Your task to perform on an android device: turn off improve location accuracy Image 0: 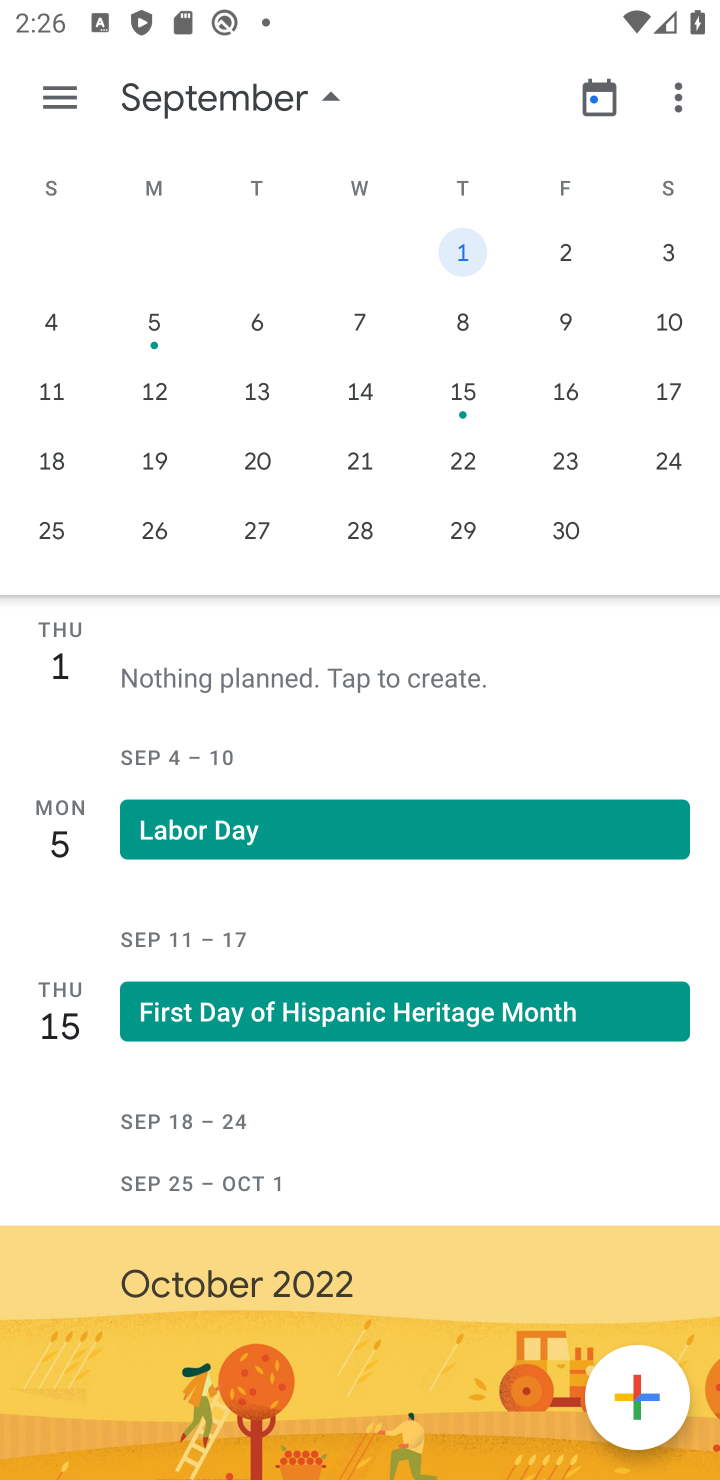
Step 0: press home button
Your task to perform on an android device: turn off improve location accuracy Image 1: 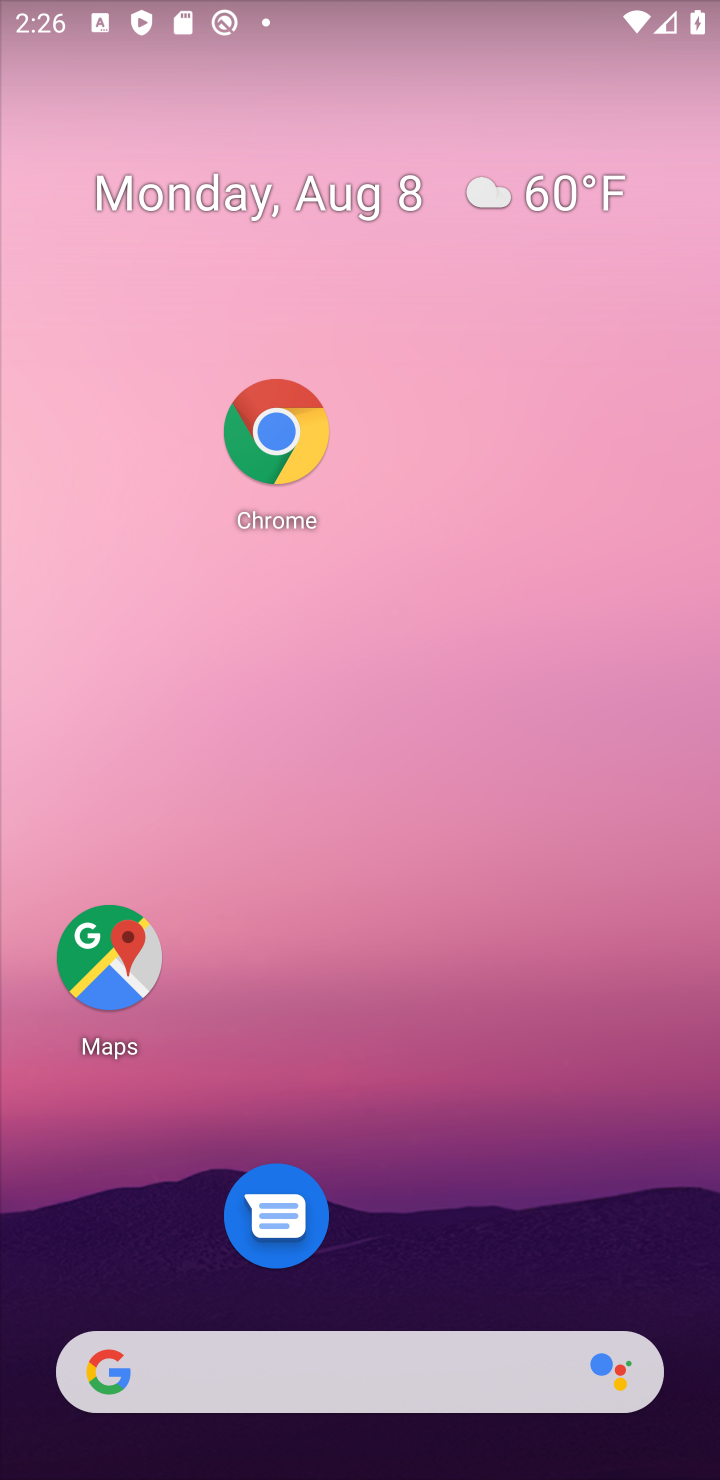
Step 1: drag from (435, 1321) to (322, 153)
Your task to perform on an android device: turn off improve location accuracy Image 2: 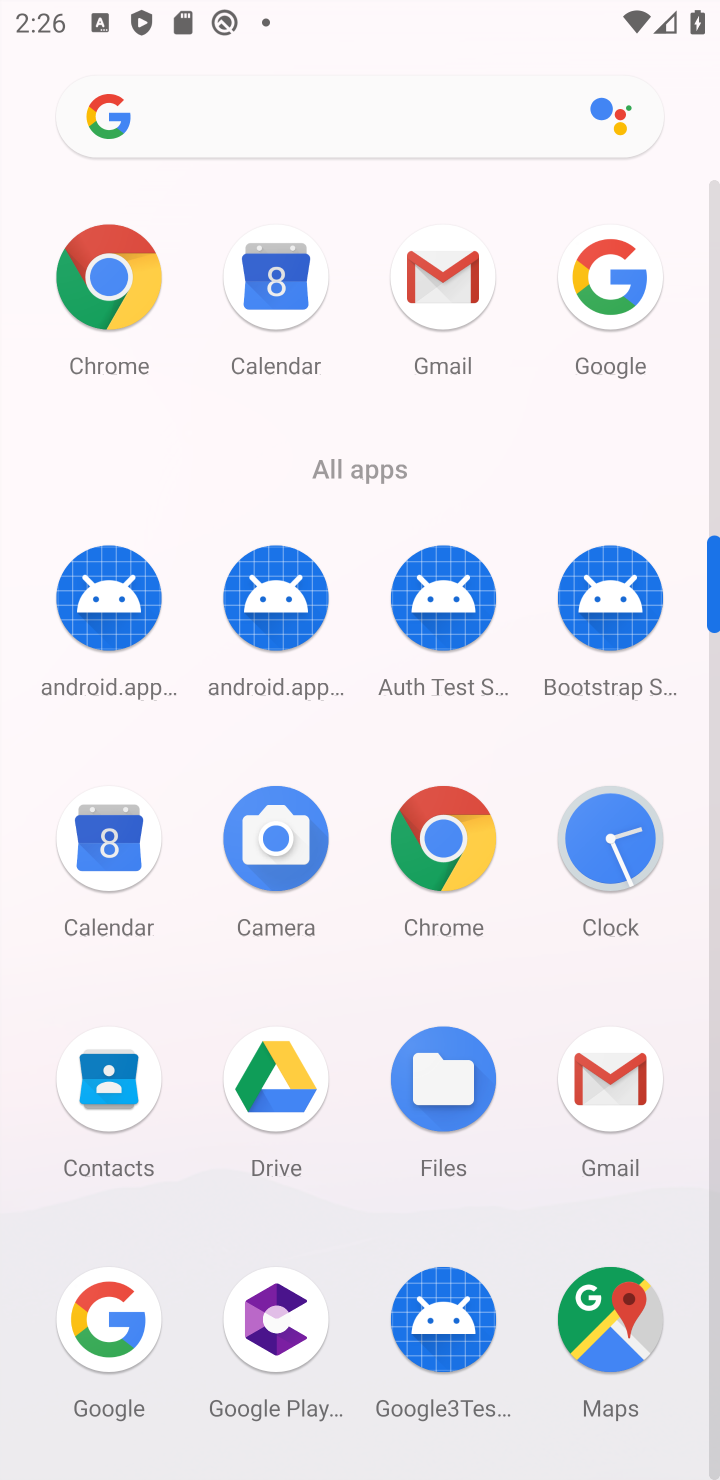
Step 2: drag from (420, 966) to (399, 23)
Your task to perform on an android device: turn off improve location accuracy Image 3: 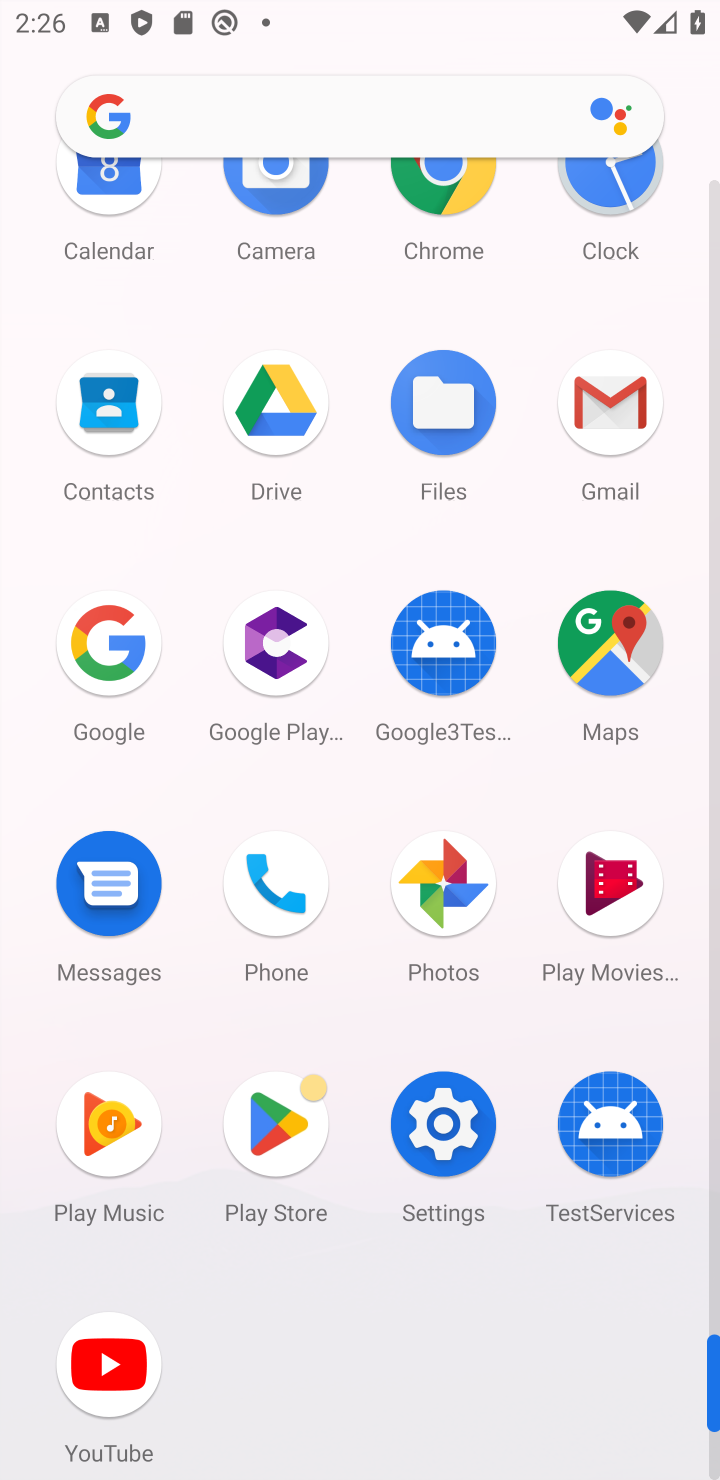
Step 3: click (461, 1185)
Your task to perform on an android device: turn off improve location accuracy Image 4: 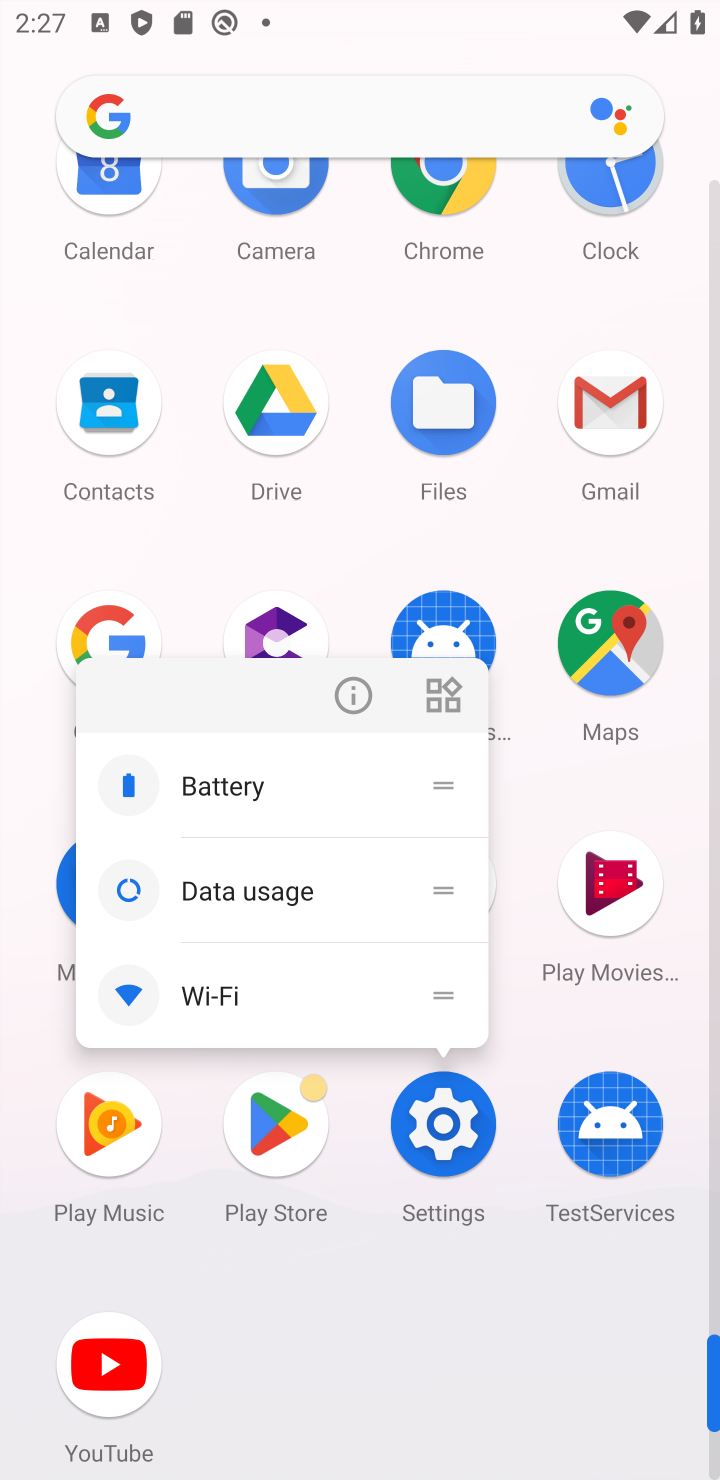
Step 4: click (455, 1184)
Your task to perform on an android device: turn off improve location accuracy Image 5: 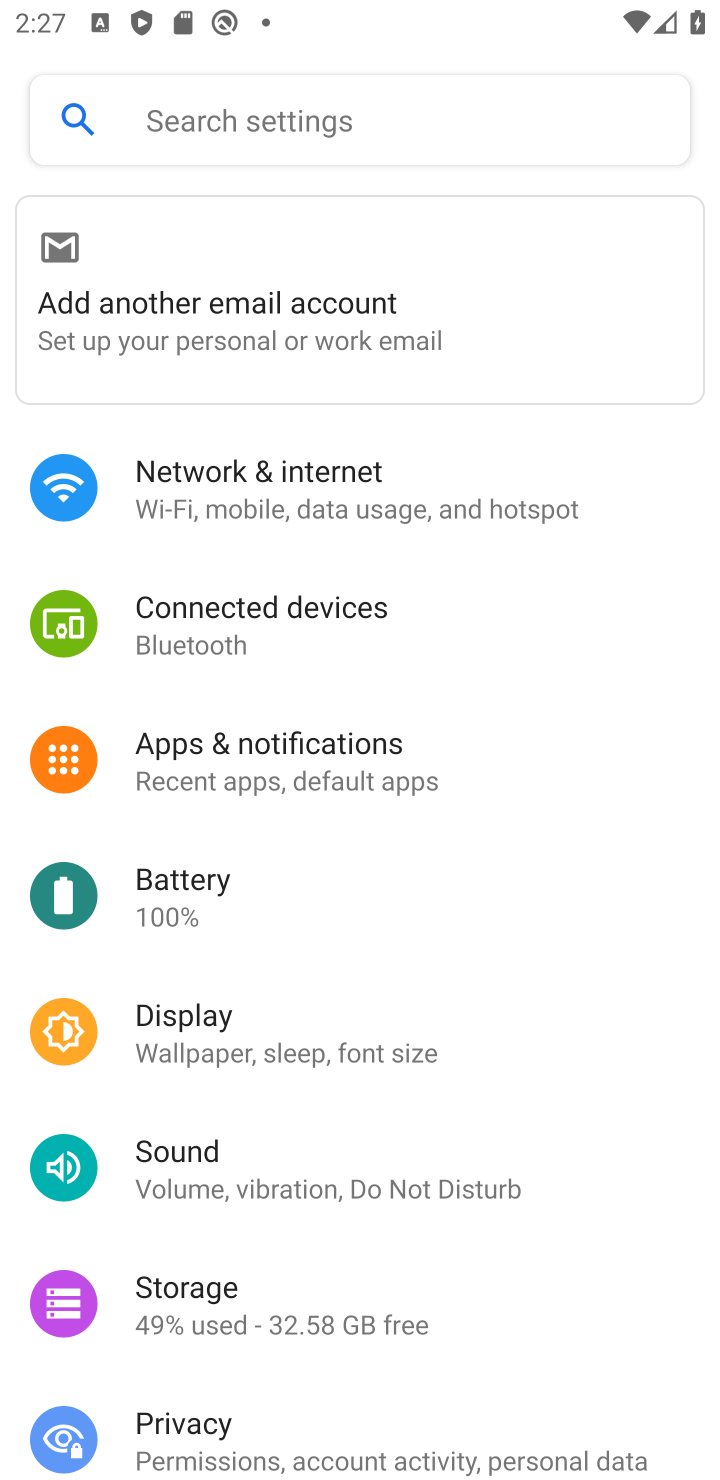
Step 5: drag from (344, 957) to (359, 482)
Your task to perform on an android device: turn off improve location accuracy Image 6: 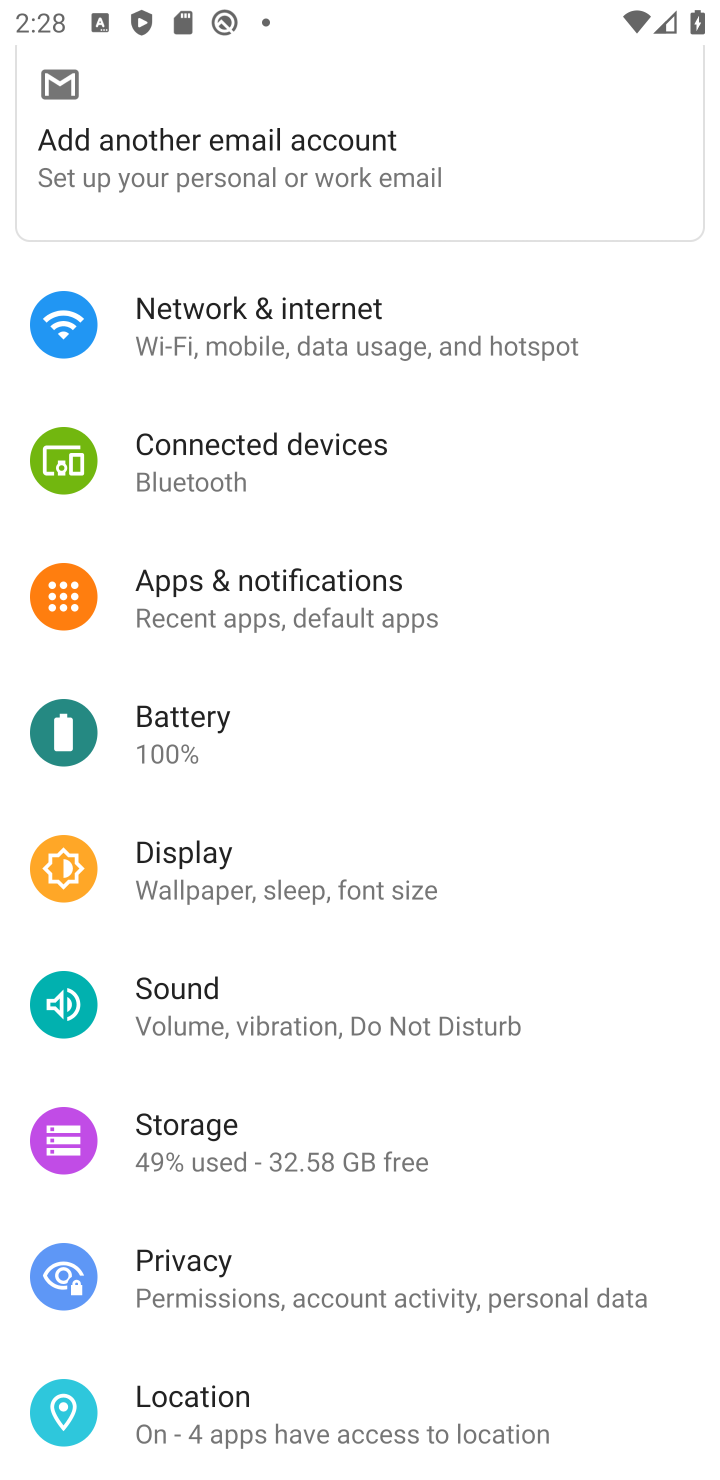
Step 6: click (300, 1415)
Your task to perform on an android device: turn off improve location accuracy Image 7: 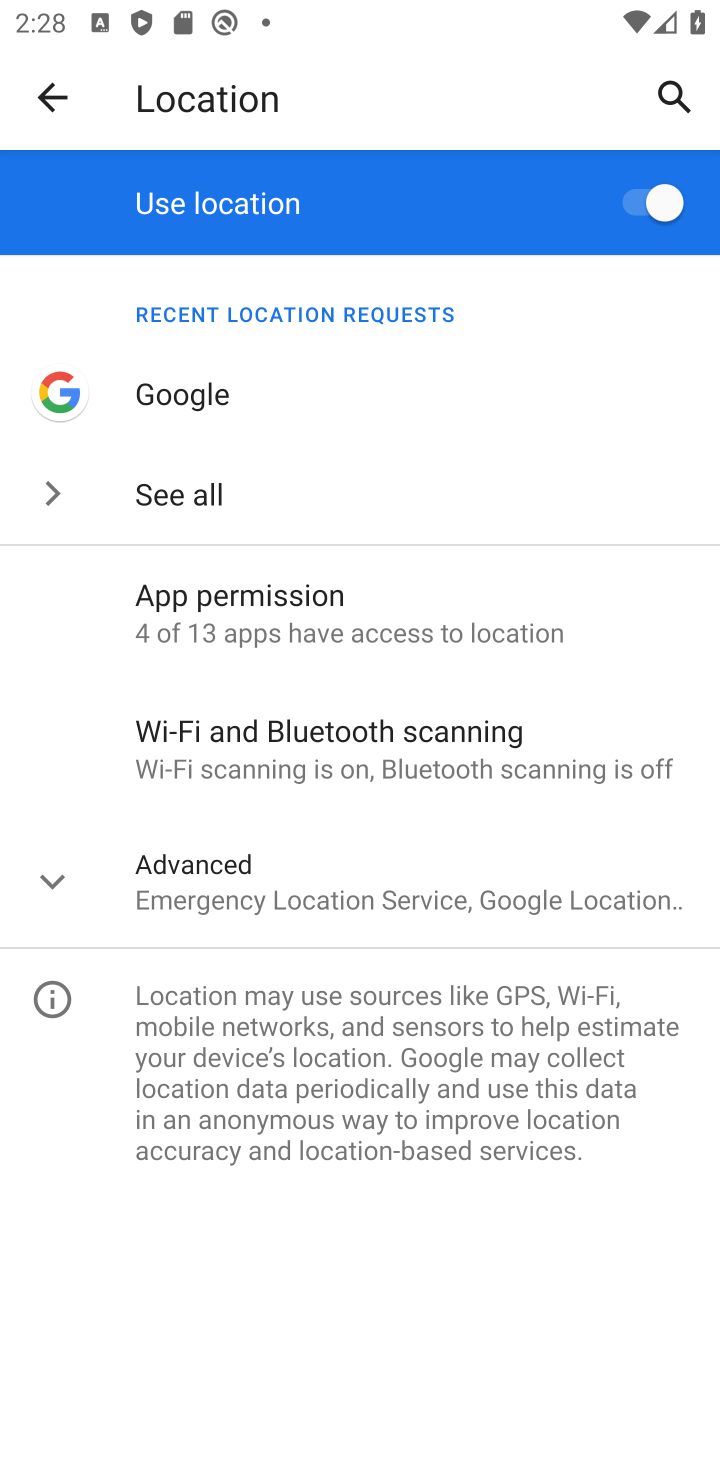
Step 7: click (652, 201)
Your task to perform on an android device: turn off improve location accuracy Image 8: 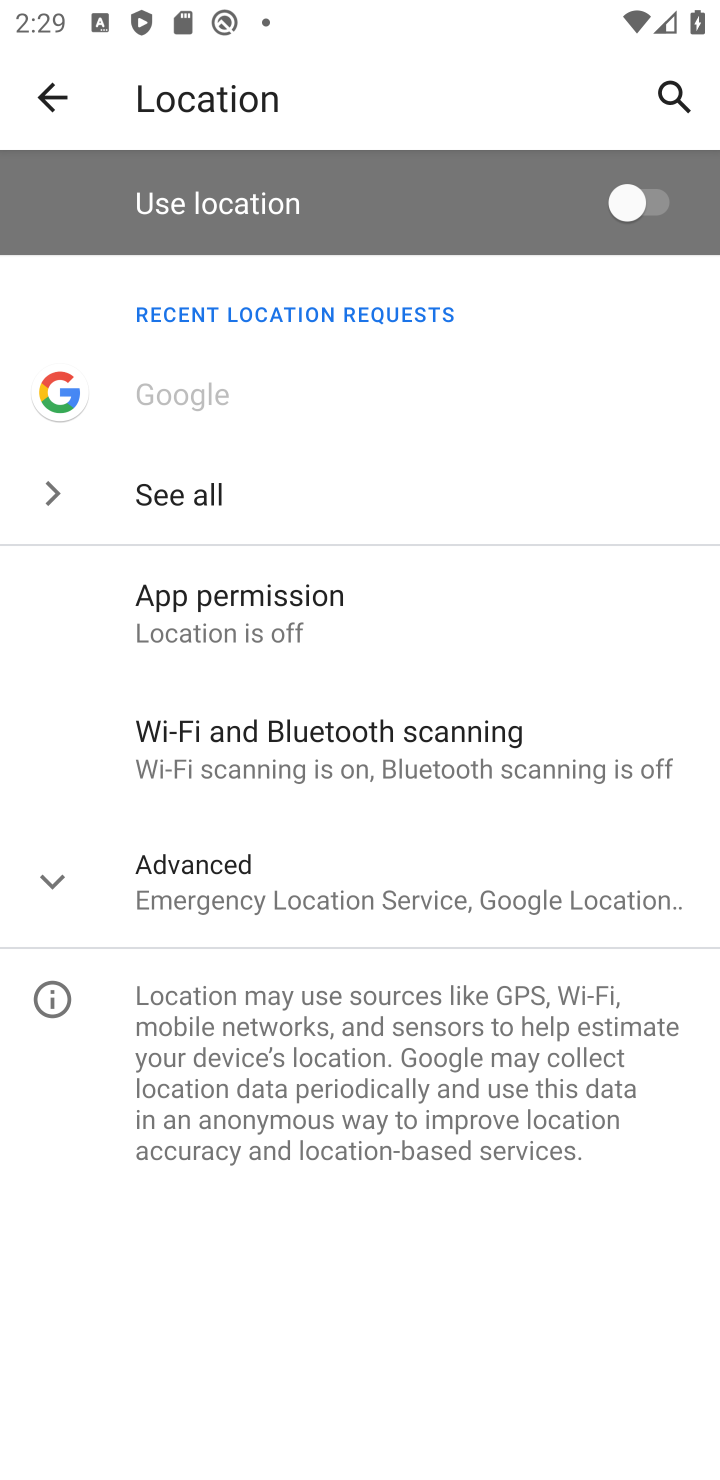
Step 8: task complete